Your task to perform on an android device: Open calendar and show me the first week of next month Image 0: 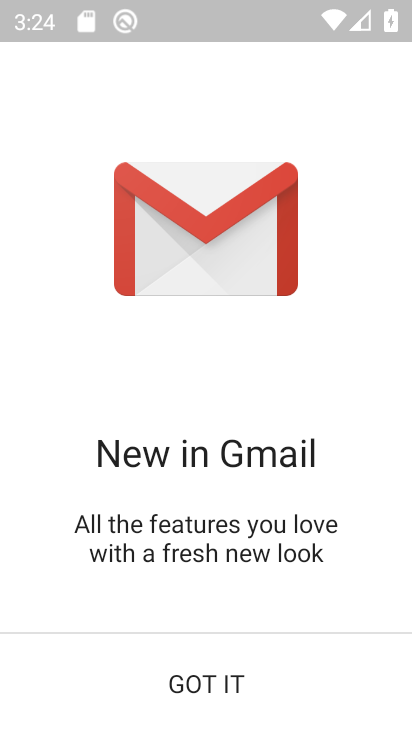
Step 0: click (222, 679)
Your task to perform on an android device: Open calendar and show me the first week of next month Image 1: 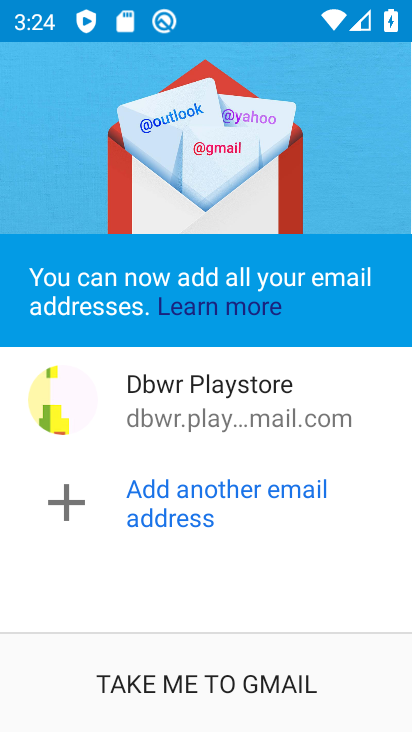
Step 1: press home button
Your task to perform on an android device: Open calendar and show me the first week of next month Image 2: 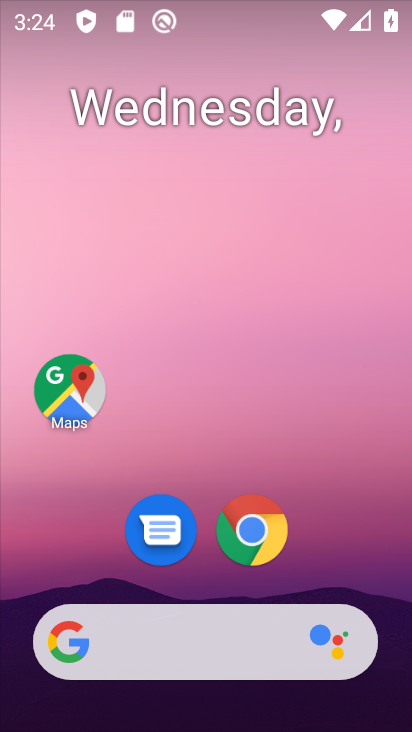
Step 2: drag from (319, 429) to (326, 116)
Your task to perform on an android device: Open calendar and show me the first week of next month Image 3: 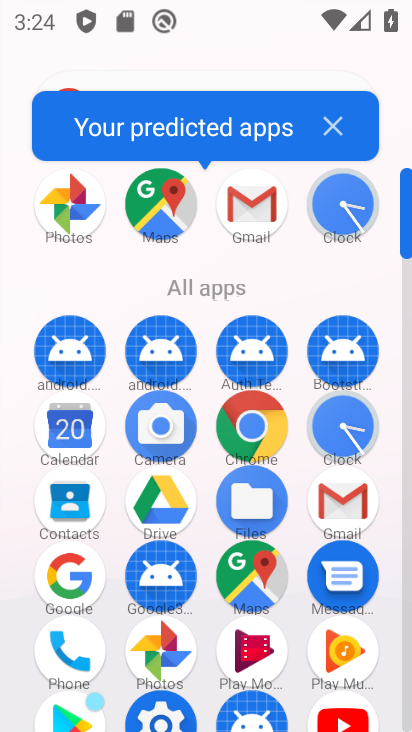
Step 3: click (62, 423)
Your task to perform on an android device: Open calendar and show me the first week of next month Image 4: 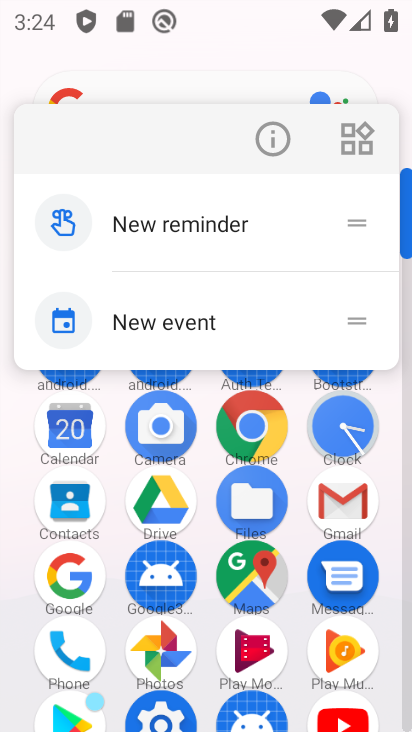
Step 4: click (75, 433)
Your task to perform on an android device: Open calendar and show me the first week of next month Image 5: 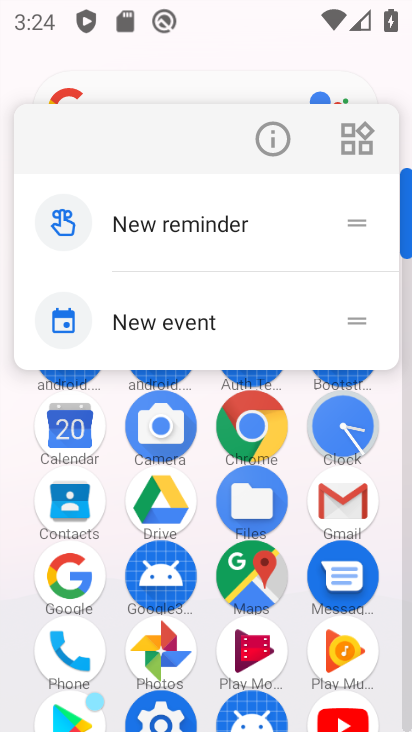
Step 5: click (64, 430)
Your task to perform on an android device: Open calendar and show me the first week of next month Image 6: 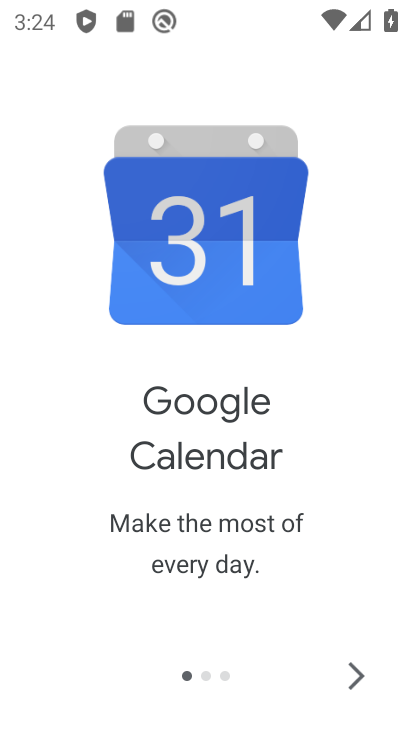
Step 6: click (355, 677)
Your task to perform on an android device: Open calendar and show me the first week of next month Image 7: 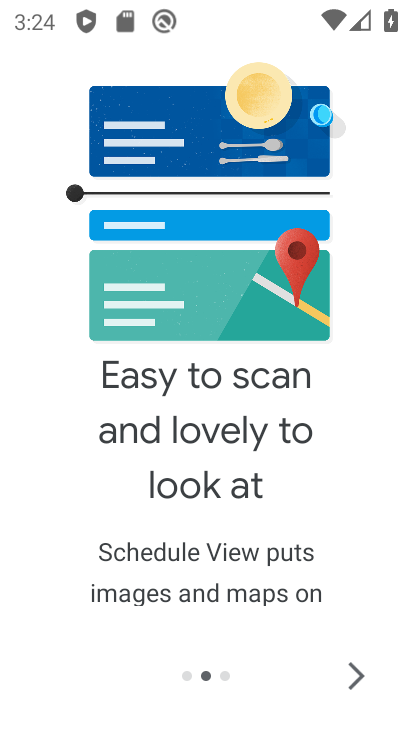
Step 7: click (355, 677)
Your task to perform on an android device: Open calendar and show me the first week of next month Image 8: 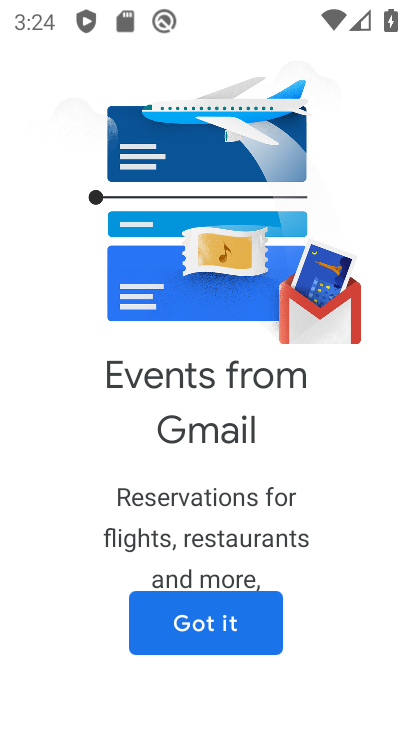
Step 8: click (239, 616)
Your task to perform on an android device: Open calendar and show me the first week of next month Image 9: 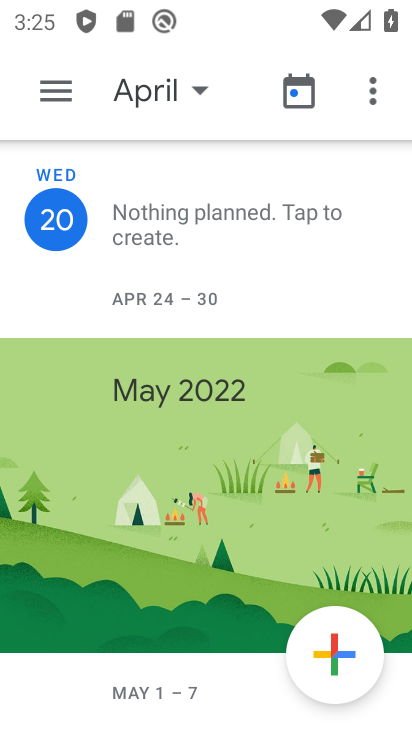
Step 9: click (179, 92)
Your task to perform on an android device: Open calendar and show me the first week of next month Image 10: 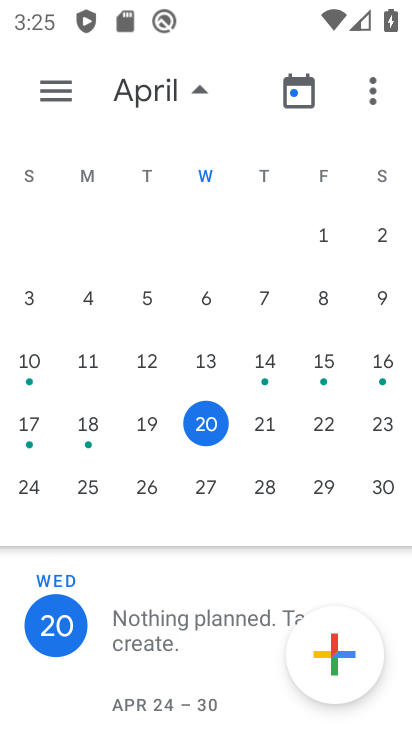
Step 10: drag from (380, 267) to (4, 234)
Your task to perform on an android device: Open calendar and show me the first week of next month Image 11: 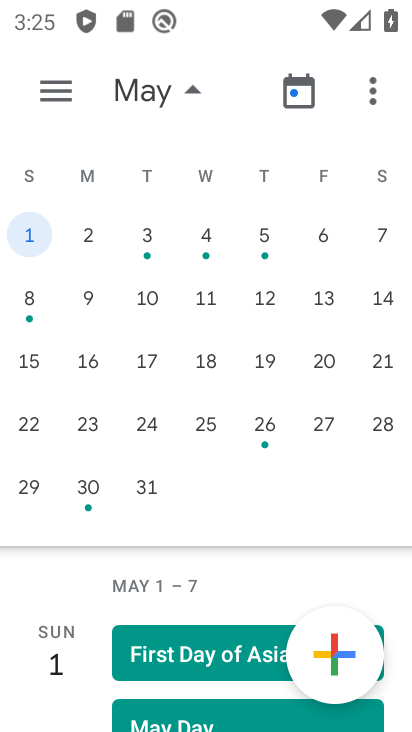
Step 11: click (203, 232)
Your task to perform on an android device: Open calendar and show me the first week of next month Image 12: 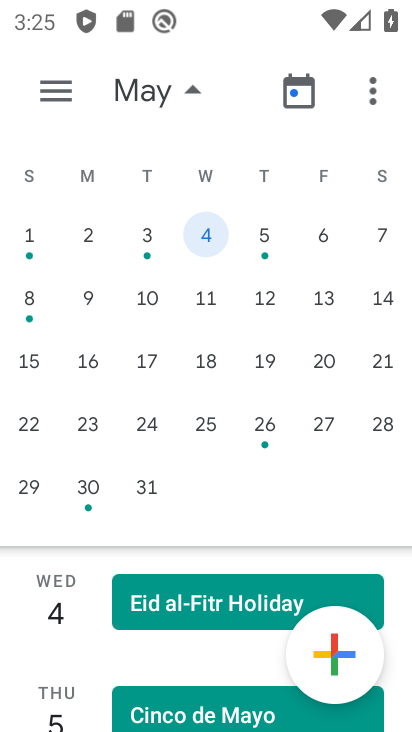
Step 12: task complete